Your task to perform on an android device: open app "TextNow: Call + Text Unlimited" (install if not already installed) and go to login screen Image 0: 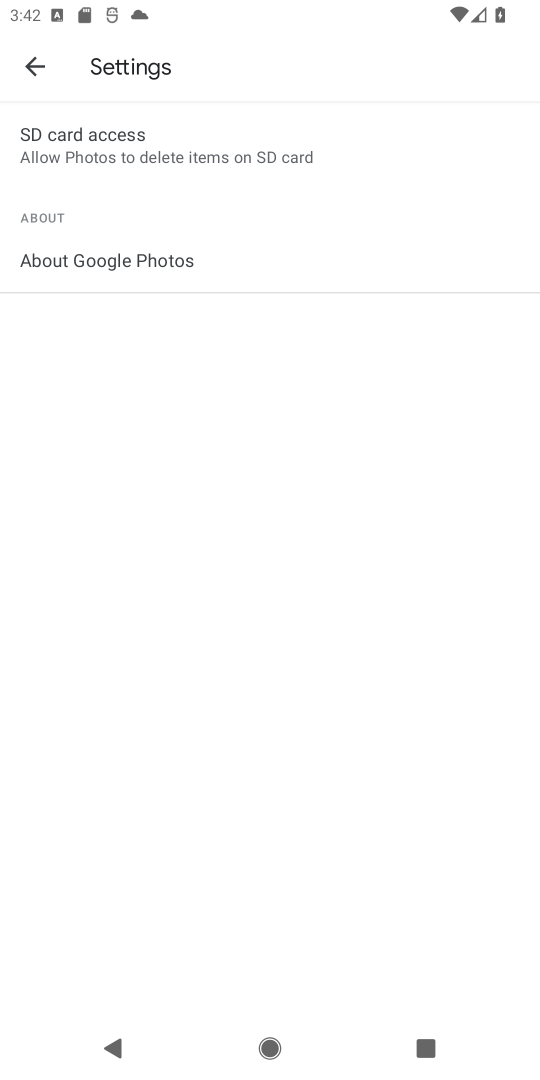
Step 0: press home button
Your task to perform on an android device: open app "TextNow: Call + Text Unlimited" (install if not already installed) and go to login screen Image 1: 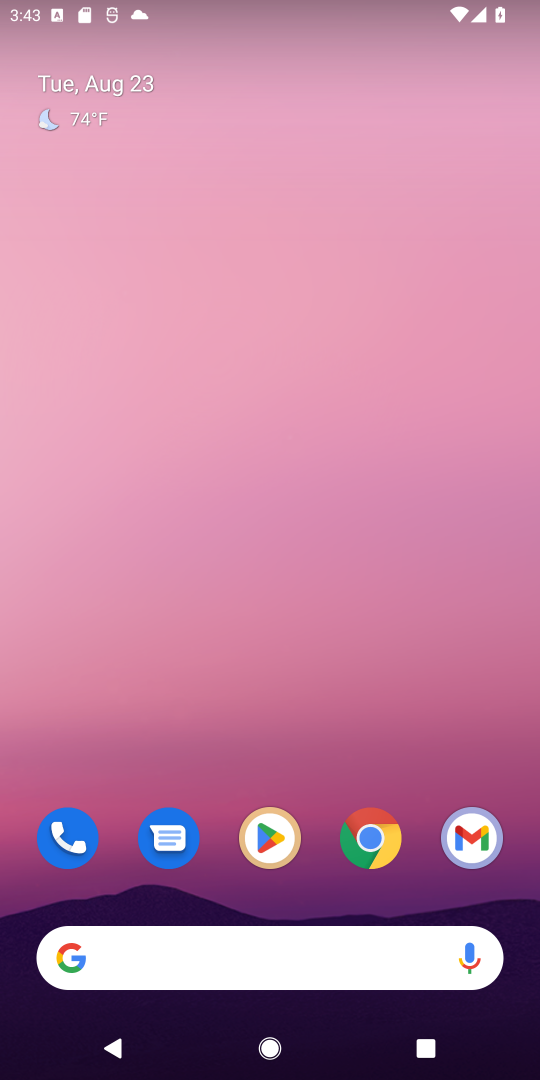
Step 1: click (266, 833)
Your task to perform on an android device: open app "TextNow: Call + Text Unlimited" (install if not already installed) and go to login screen Image 2: 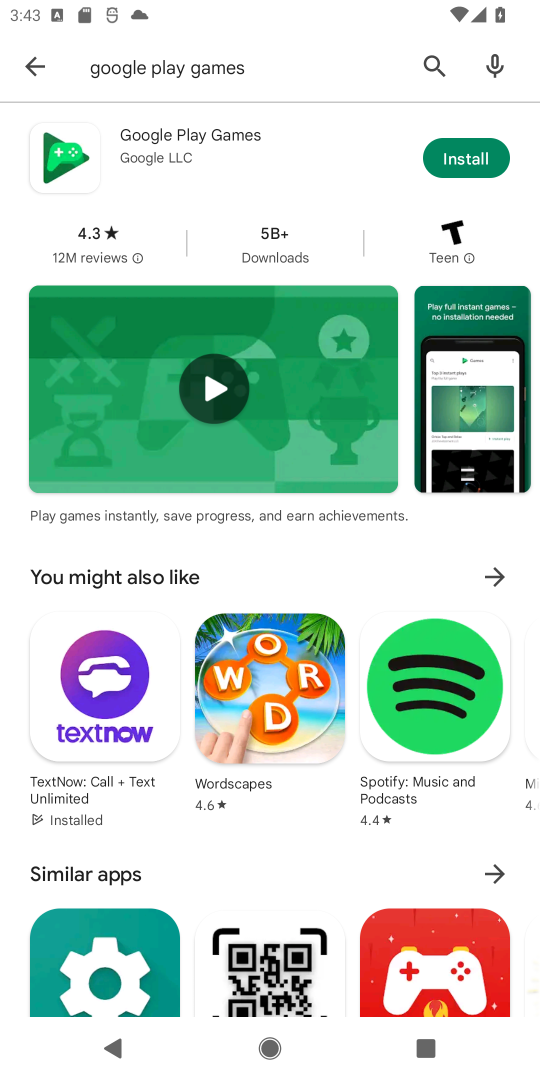
Step 2: click (18, 58)
Your task to perform on an android device: open app "TextNow: Call + Text Unlimited" (install if not already installed) and go to login screen Image 3: 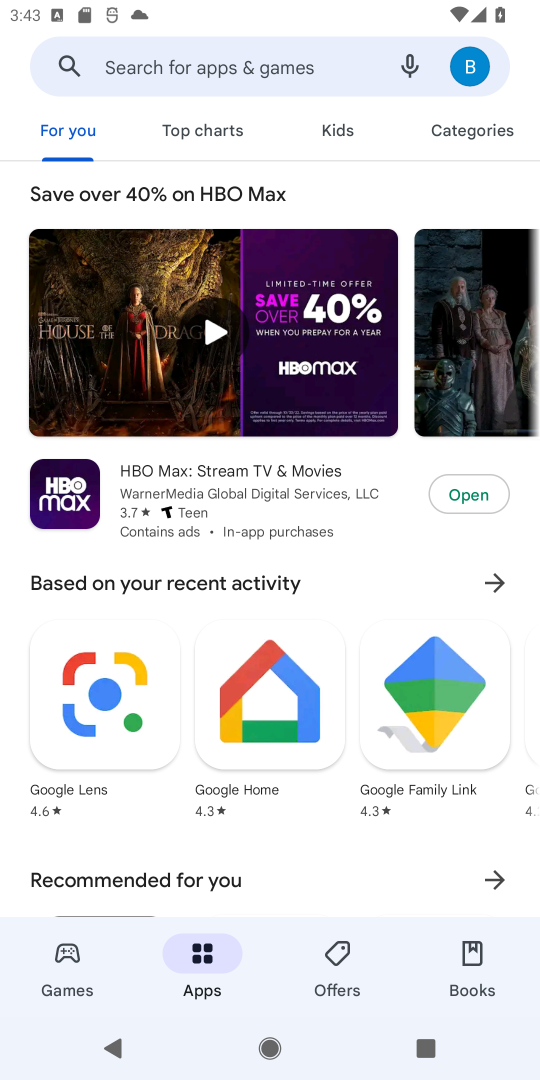
Step 3: type "TextNow"
Your task to perform on an android device: open app "TextNow: Call + Text Unlimited" (install if not already installed) and go to login screen Image 4: 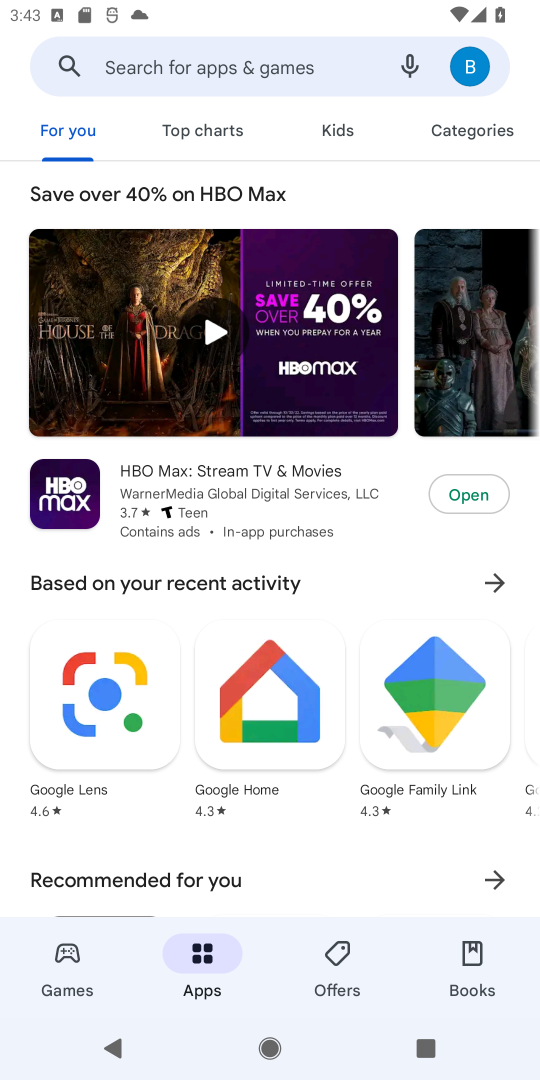
Step 4: type ""
Your task to perform on an android device: open app "TextNow: Call + Text Unlimited" (install if not already installed) and go to login screen Image 5: 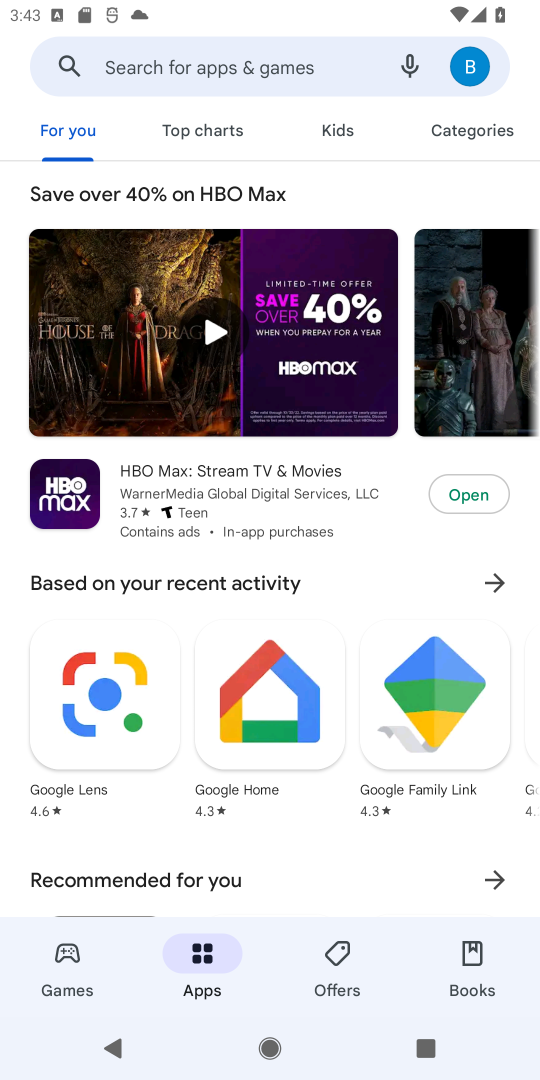
Step 5: click (171, 71)
Your task to perform on an android device: open app "TextNow: Call + Text Unlimited" (install if not already installed) and go to login screen Image 6: 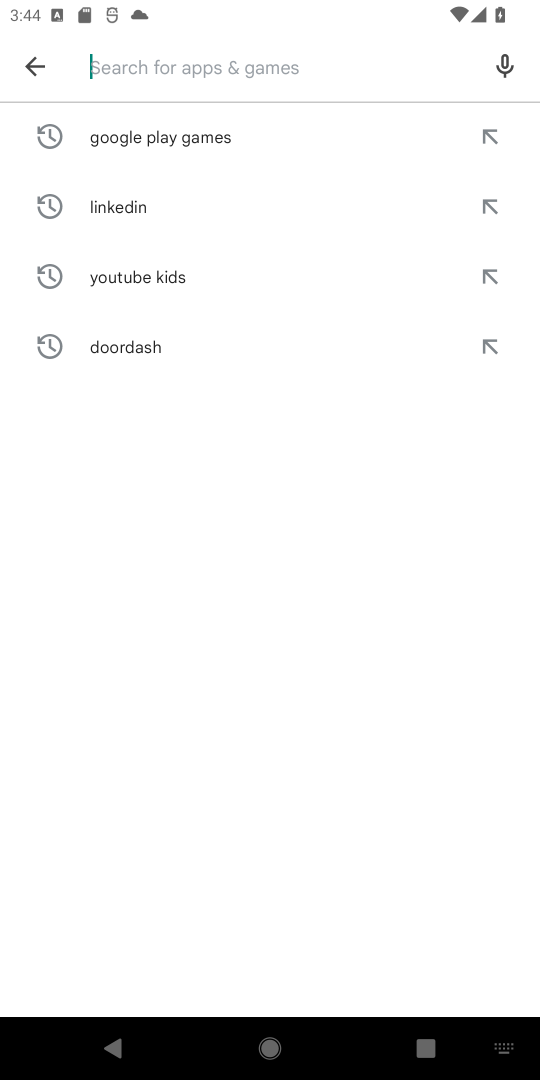
Step 6: type "TextNow: Call + Text Unlimited"
Your task to perform on an android device: open app "TextNow: Call + Text Unlimited" (install if not already installed) and go to login screen Image 7: 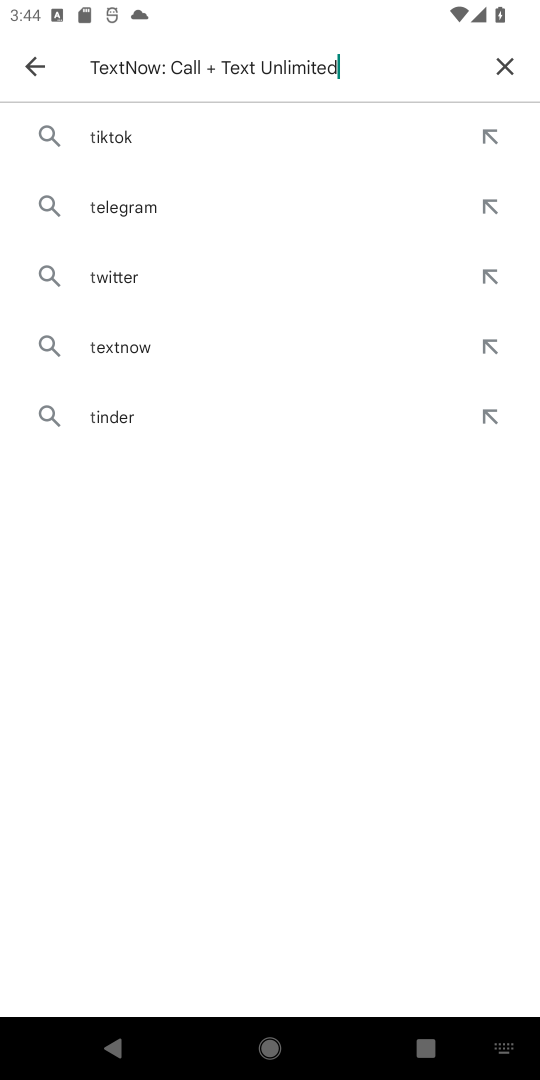
Step 7: type ""
Your task to perform on an android device: open app "TextNow: Call + Text Unlimited" (install if not already installed) and go to login screen Image 8: 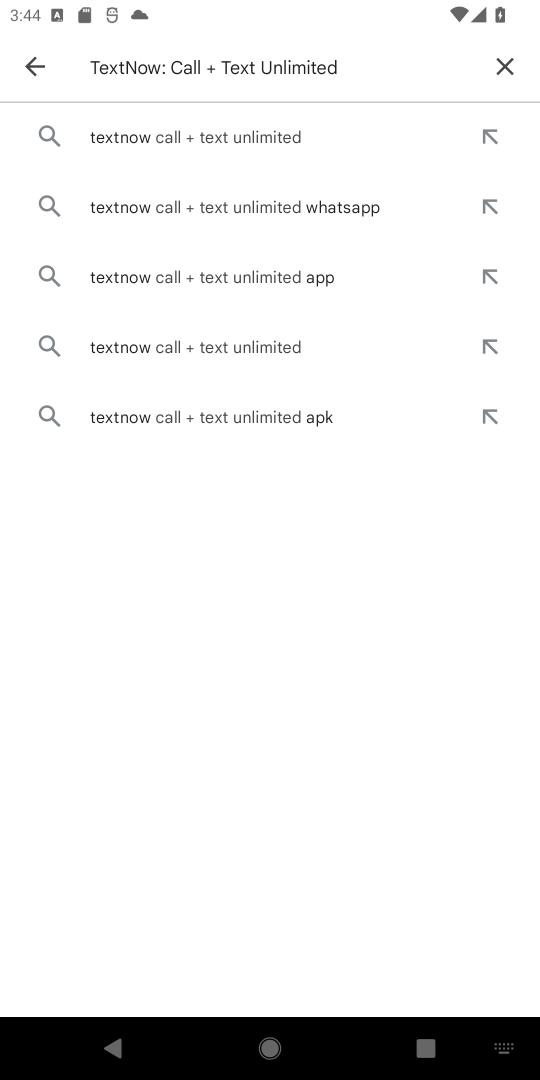
Step 8: click (239, 130)
Your task to perform on an android device: open app "TextNow: Call + Text Unlimited" (install if not already installed) and go to login screen Image 9: 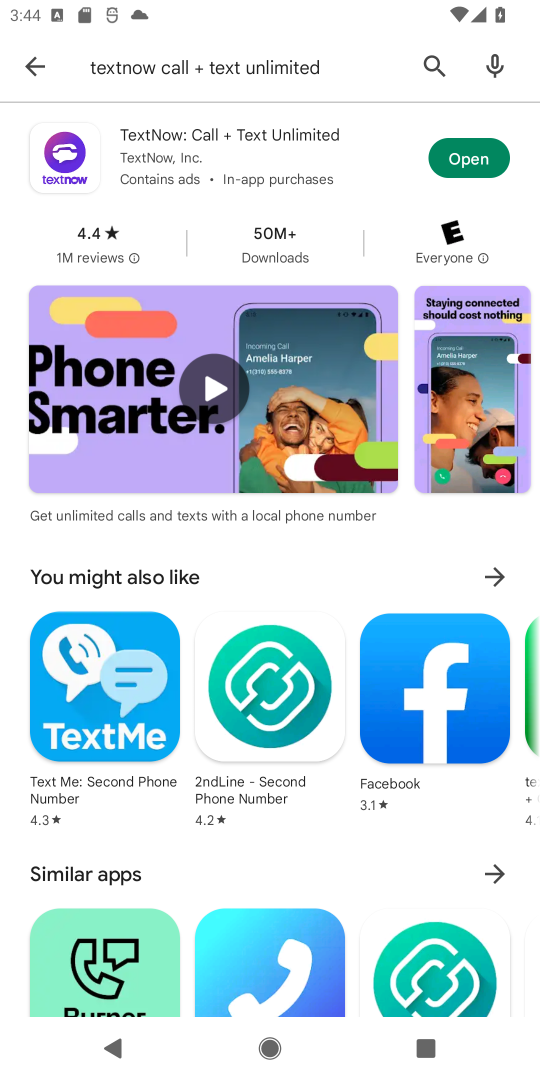
Step 9: click (448, 164)
Your task to perform on an android device: open app "TextNow: Call + Text Unlimited" (install if not already installed) and go to login screen Image 10: 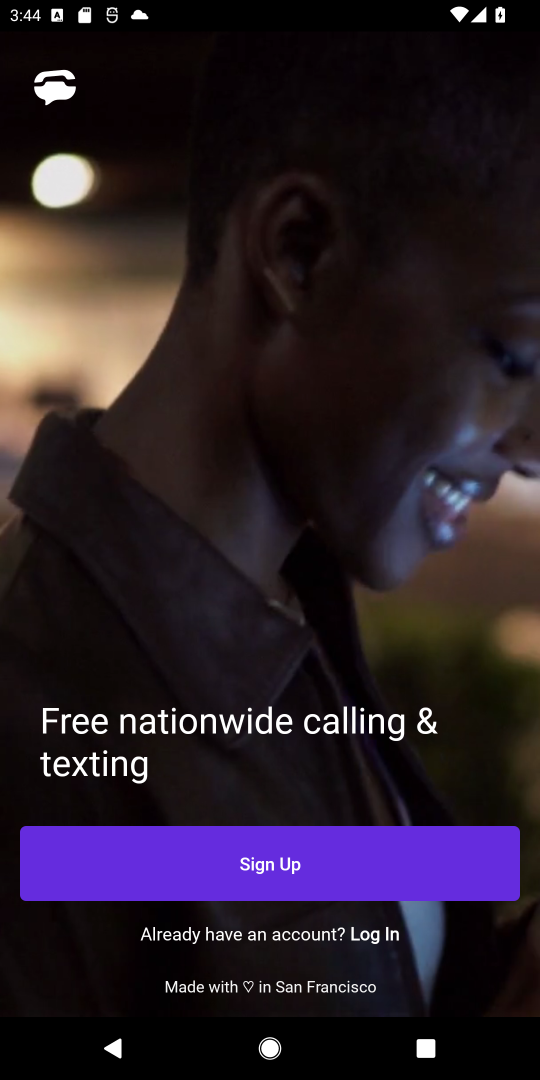
Step 10: task complete